Your task to perform on an android device: turn smart compose on in the gmail app Image 0: 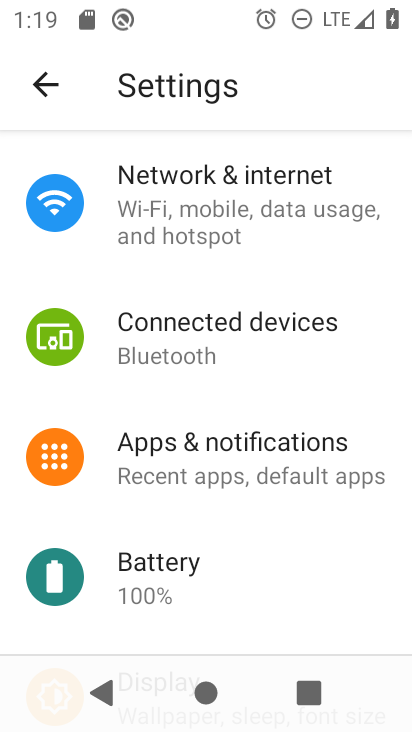
Step 0: press home button
Your task to perform on an android device: turn smart compose on in the gmail app Image 1: 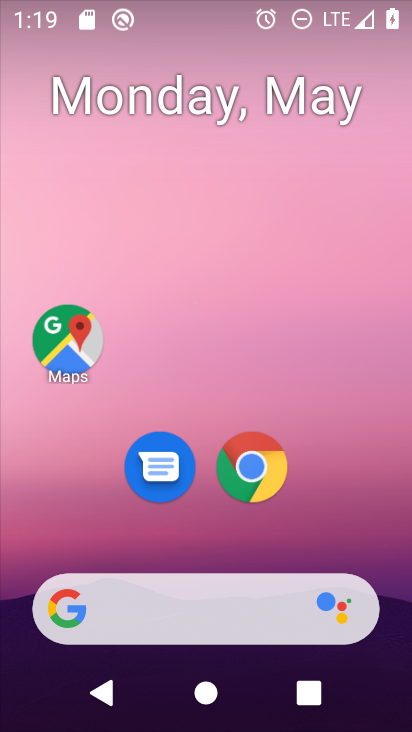
Step 1: drag from (384, 567) to (409, 701)
Your task to perform on an android device: turn smart compose on in the gmail app Image 2: 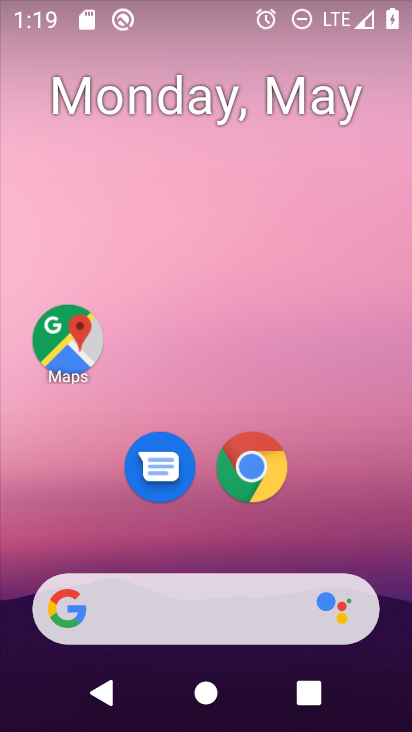
Step 2: drag from (393, 592) to (399, 528)
Your task to perform on an android device: turn smart compose on in the gmail app Image 3: 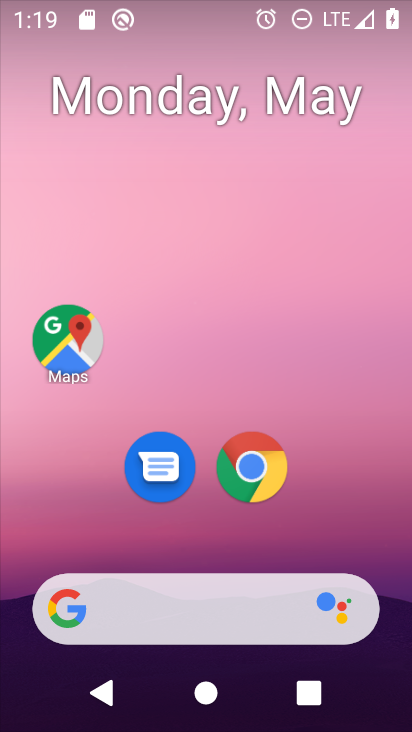
Step 3: click (393, 538)
Your task to perform on an android device: turn smart compose on in the gmail app Image 4: 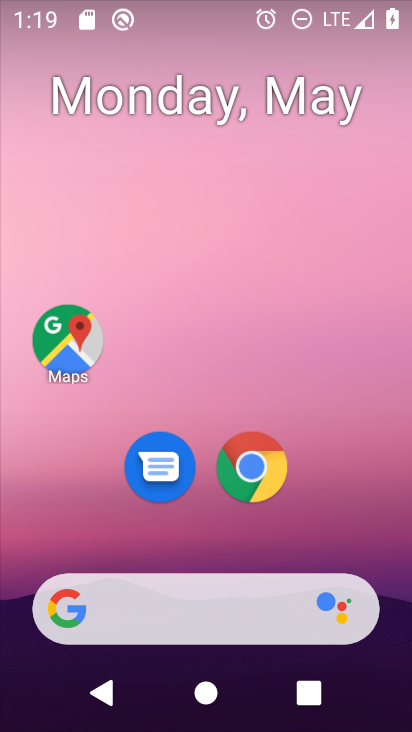
Step 4: drag from (376, 552) to (398, 21)
Your task to perform on an android device: turn smart compose on in the gmail app Image 5: 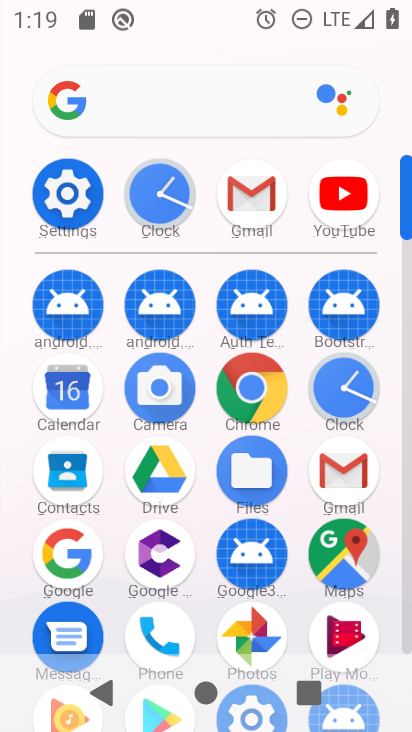
Step 5: click (249, 201)
Your task to perform on an android device: turn smart compose on in the gmail app Image 6: 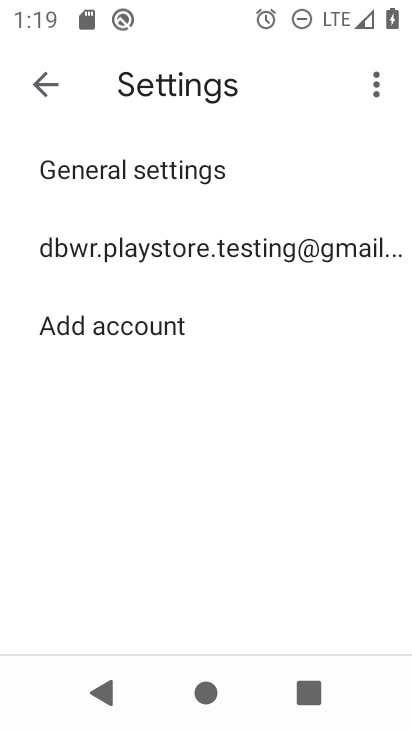
Step 6: click (112, 257)
Your task to perform on an android device: turn smart compose on in the gmail app Image 7: 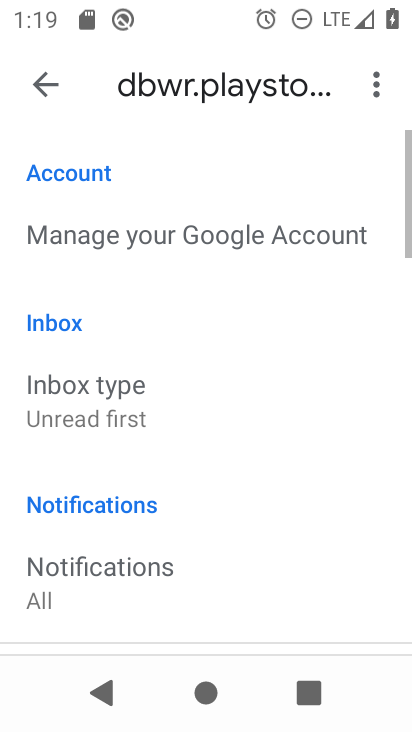
Step 7: task complete